Your task to perform on an android device: open a bookmark in the chrome app Image 0: 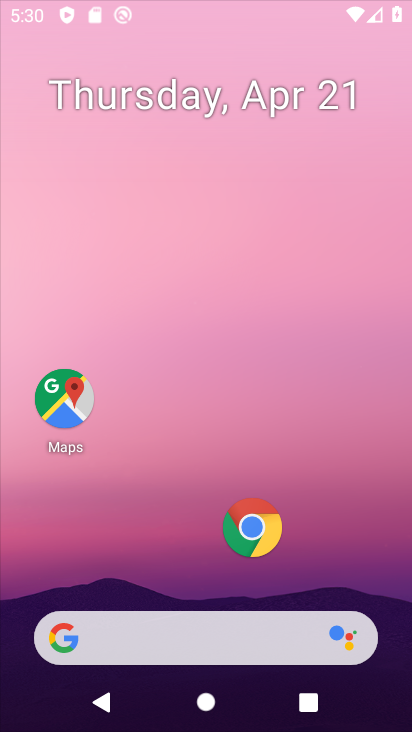
Step 0: click (221, 531)
Your task to perform on an android device: open a bookmark in the chrome app Image 1: 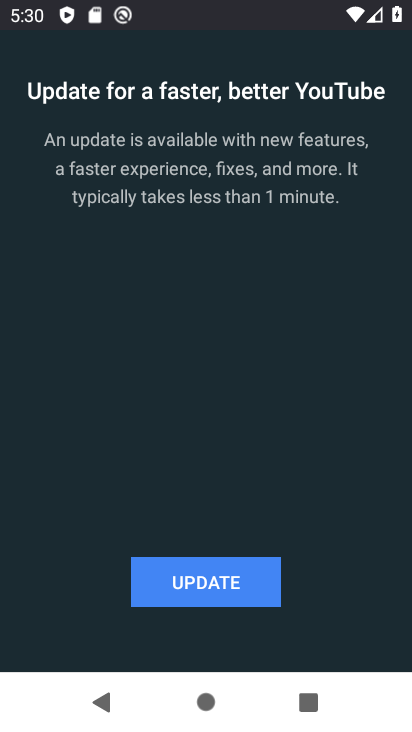
Step 1: drag from (101, 7) to (146, 451)
Your task to perform on an android device: open a bookmark in the chrome app Image 2: 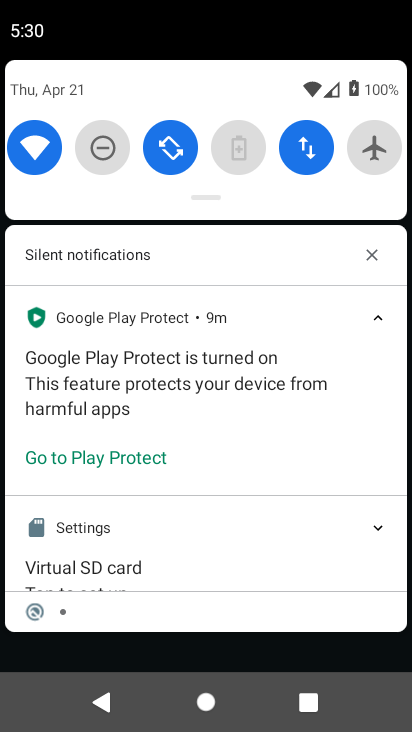
Step 2: drag from (25, 138) to (170, 184)
Your task to perform on an android device: open a bookmark in the chrome app Image 3: 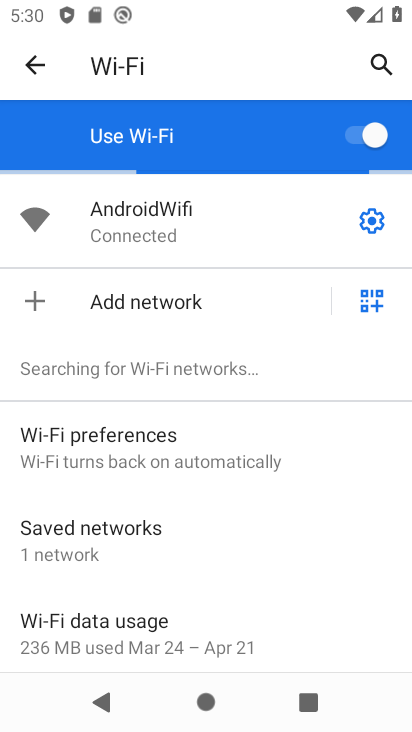
Step 3: press back button
Your task to perform on an android device: open a bookmark in the chrome app Image 4: 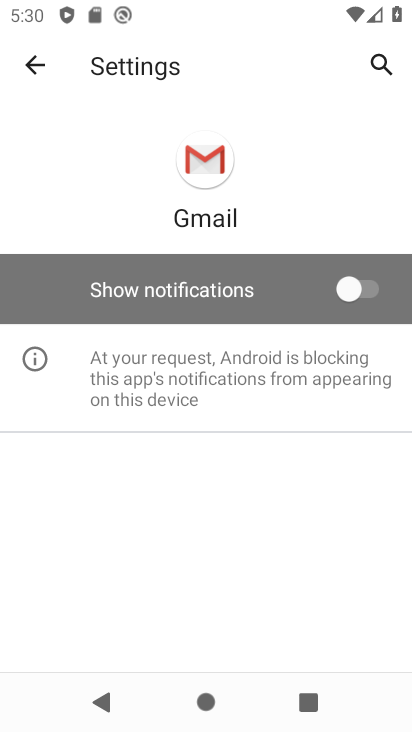
Step 4: press back button
Your task to perform on an android device: open a bookmark in the chrome app Image 5: 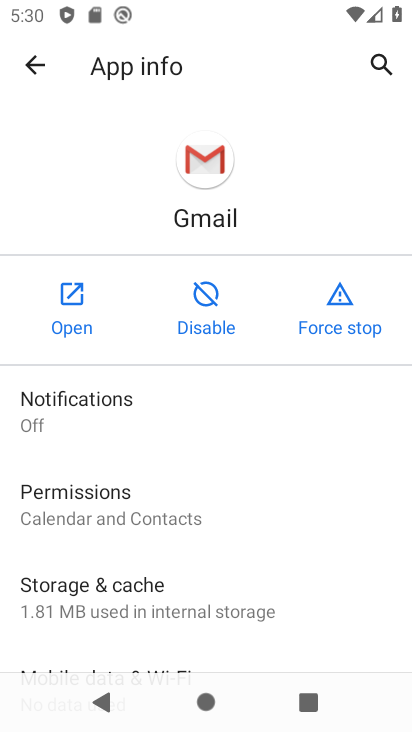
Step 5: press back button
Your task to perform on an android device: open a bookmark in the chrome app Image 6: 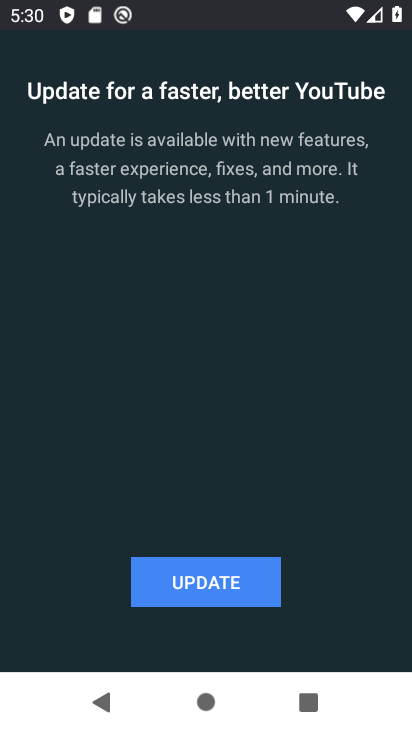
Step 6: press home button
Your task to perform on an android device: open a bookmark in the chrome app Image 7: 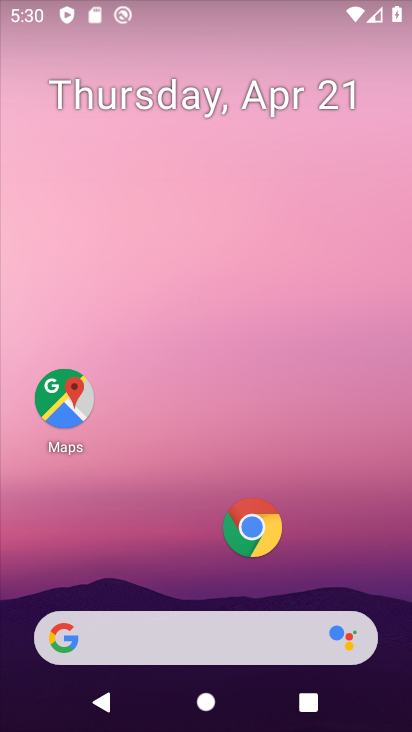
Step 7: click (246, 518)
Your task to perform on an android device: open a bookmark in the chrome app Image 8: 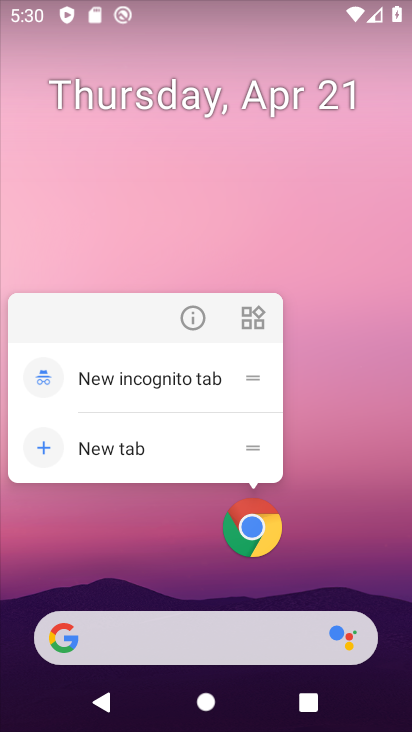
Step 8: click (250, 528)
Your task to perform on an android device: open a bookmark in the chrome app Image 9: 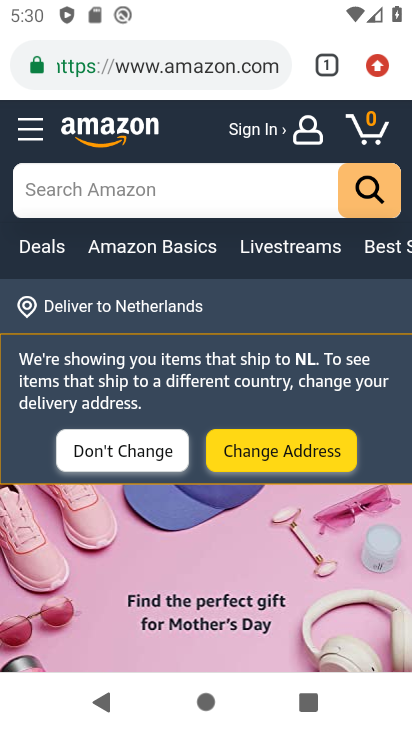
Step 9: task complete